Your task to perform on an android device: Turn on the flashlight Image 0: 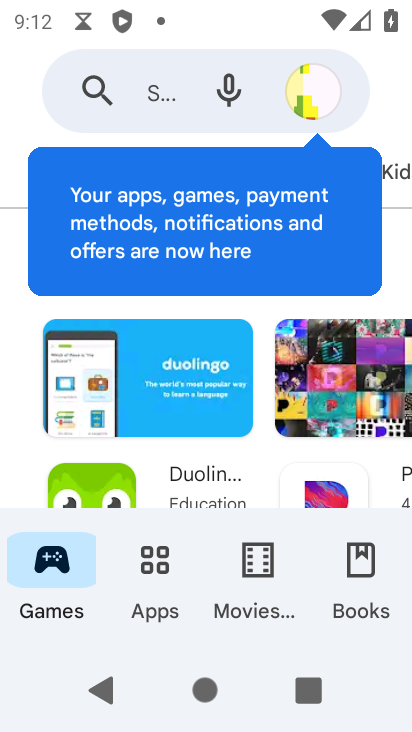
Step 0: press home button
Your task to perform on an android device: Turn on the flashlight Image 1: 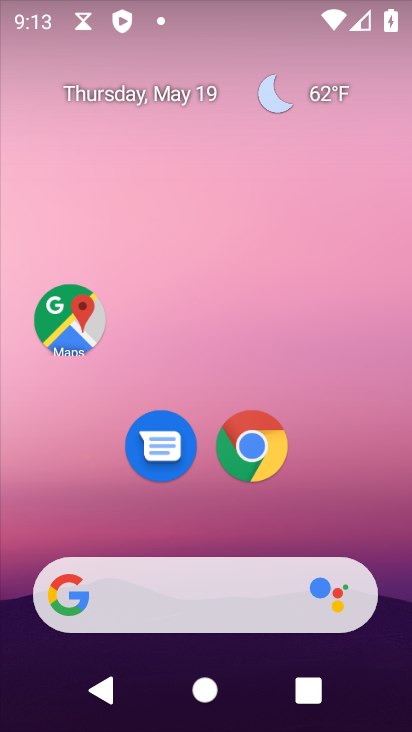
Step 1: drag from (181, 533) to (223, 0)
Your task to perform on an android device: Turn on the flashlight Image 2: 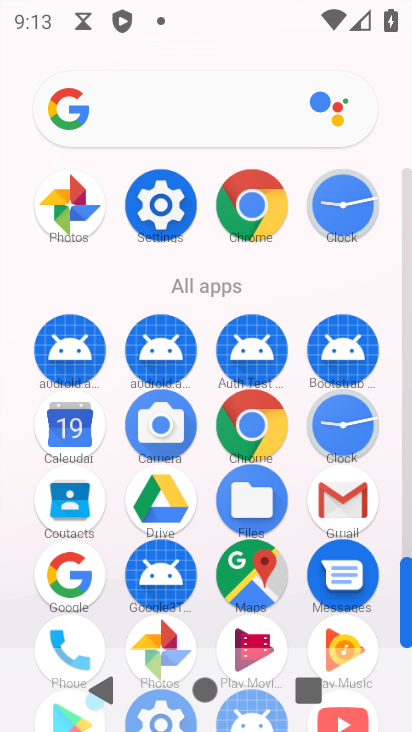
Step 2: click (146, 198)
Your task to perform on an android device: Turn on the flashlight Image 3: 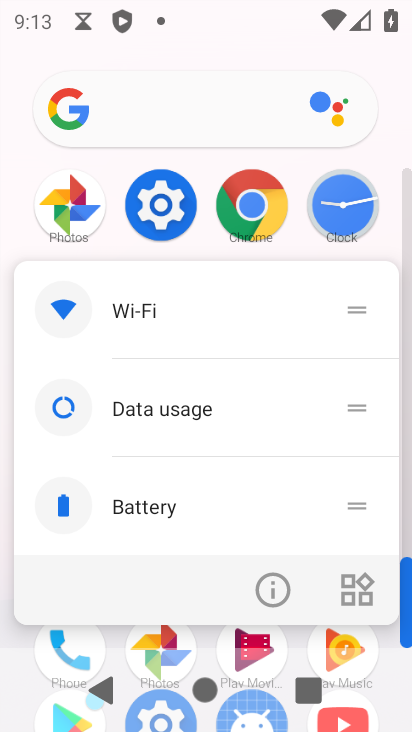
Step 3: click (146, 198)
Your task to perform on an android device: Turn on the flashlight Image 4: 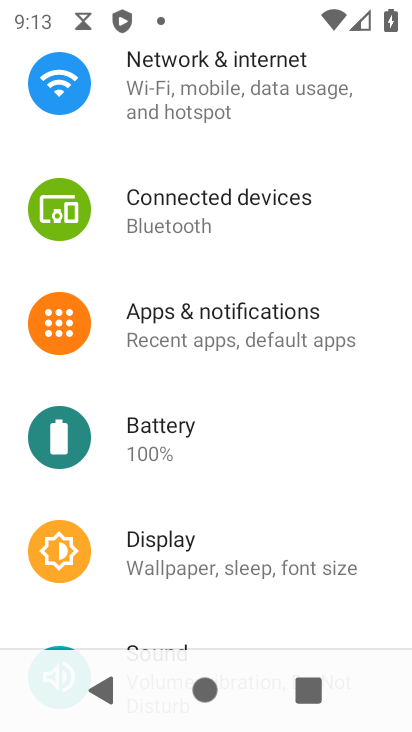
Step 4: task complete